Your task to perform on an android device: toggle show notifications on the lock screen Image 0: 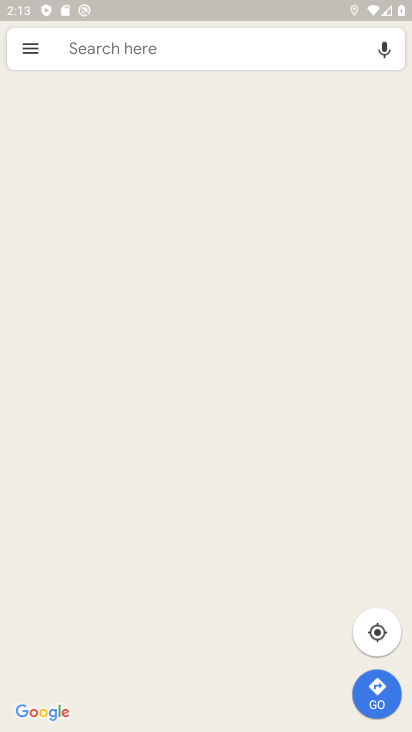
Step 0: press home button
Your task to perform on an android device: toggle show notifications on the lock screen Image 1: 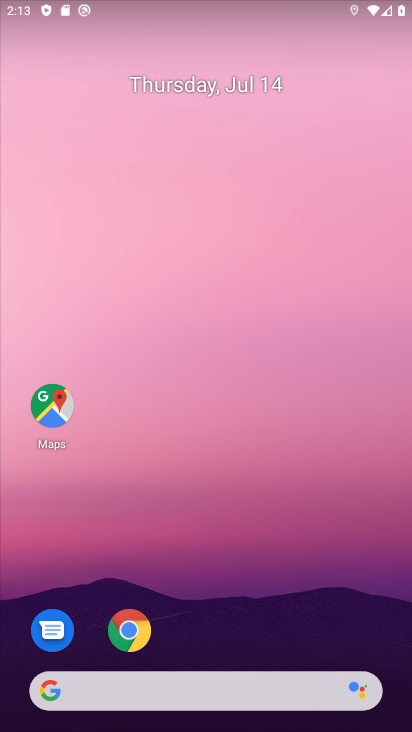
Step 1: drag from (246, 609) to (296, 147)
Your task to perform on an android device: toggle show notifications on the lock screen Image 2: 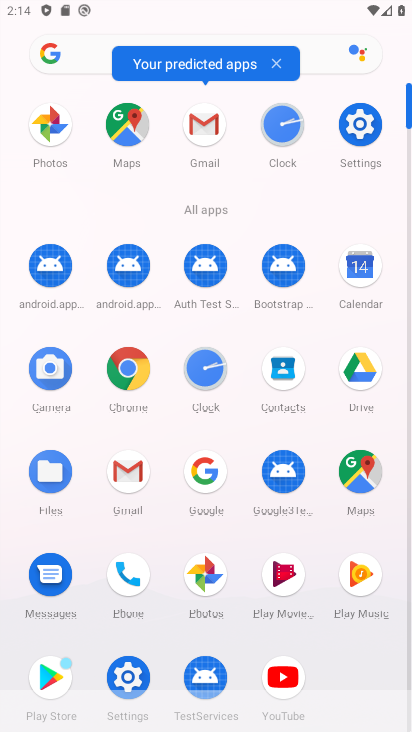
Step 2: click (351, 138)
Your task to perform on an android device: toggle show notifications on the lock screen Image 3: 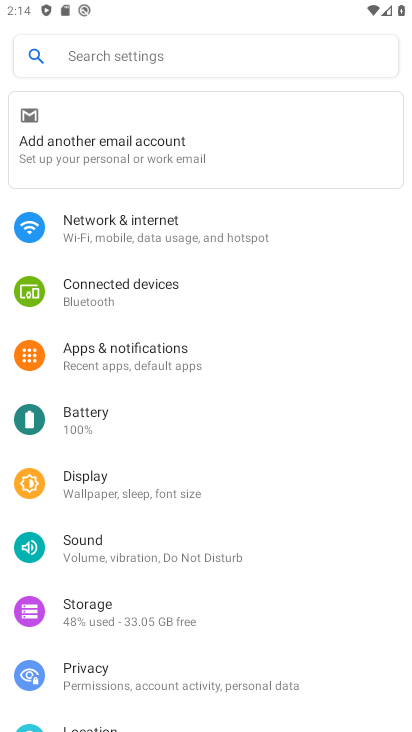
Step 3: click (135, 361)
Your task to perform on an android device: toggle show notifications on the lock screen Image 4: 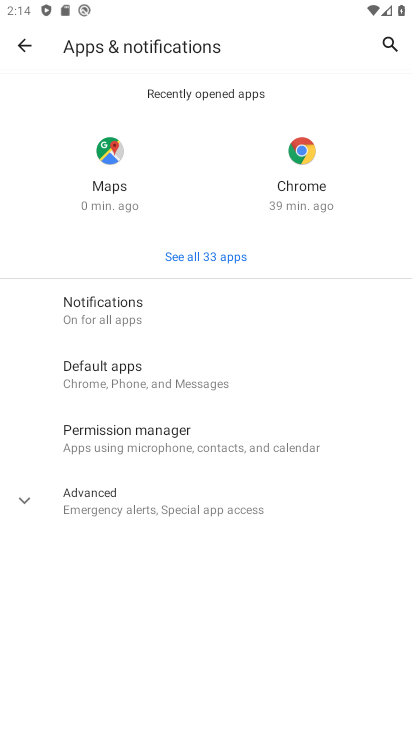
Step 4: click (143, 329)
Your task to perform on an android device: toggle show notifications on the lock screen Image 5: 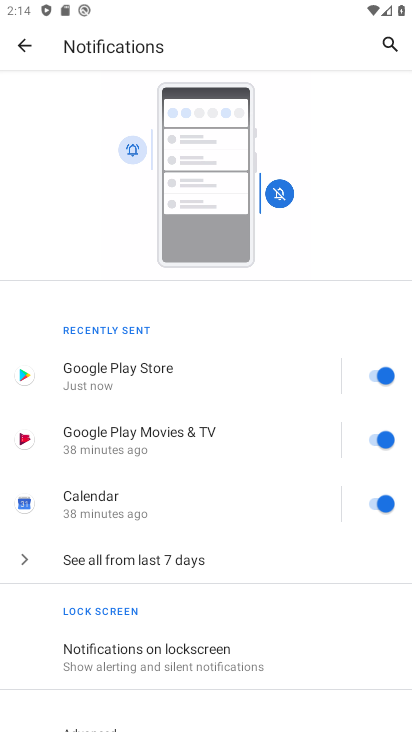
Step 5: click (160, 646)
Your task to perform on an android device: toggle show notifications on the lock screen Image 6: 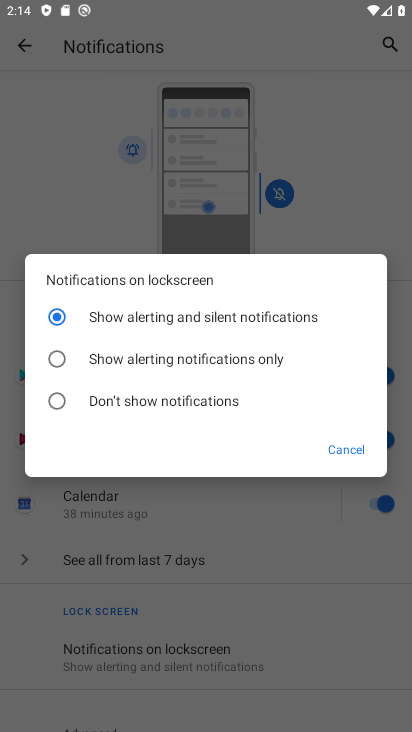
Step 6: click (98, 357)
Your task to perform on an android device: toggle show notifications on the lock screen Image 7: 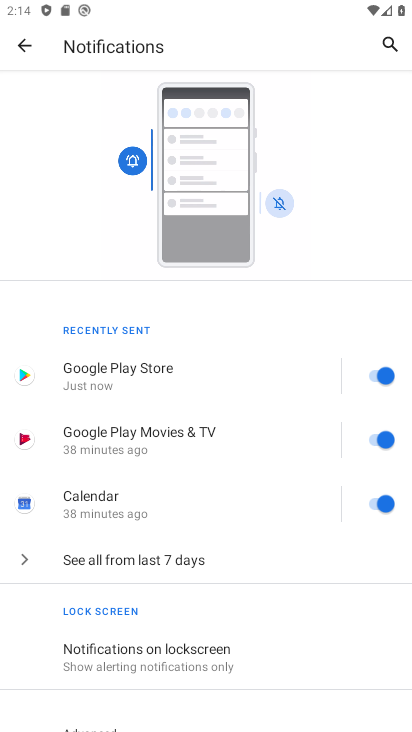
Step 7: task complete